Your task to perform on an android device: change the upload size in google photos Image 0: 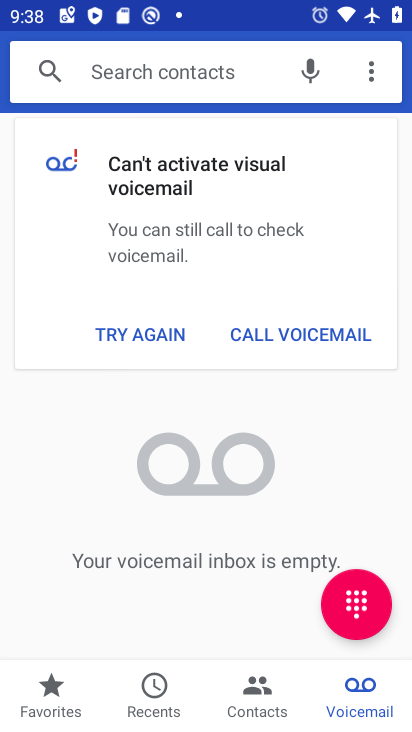
Step 0: press home button
Your task to perform on an android device: change the upload size in google photos Image 1: 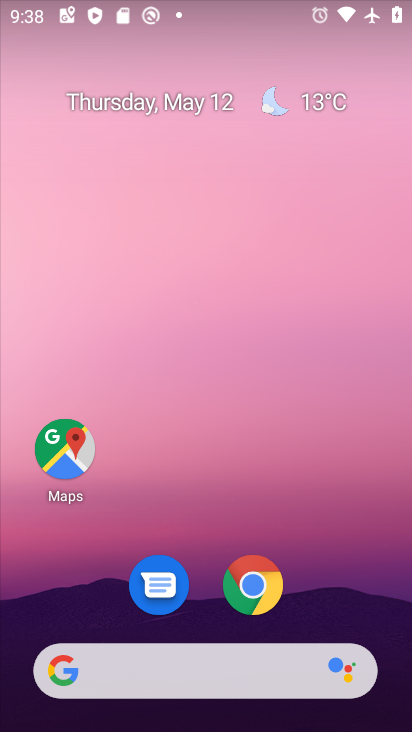
Step 1: drag from (218, 491) to (223, 21)
Your task to perform on an android device: change the upload size in google photos Image 2: 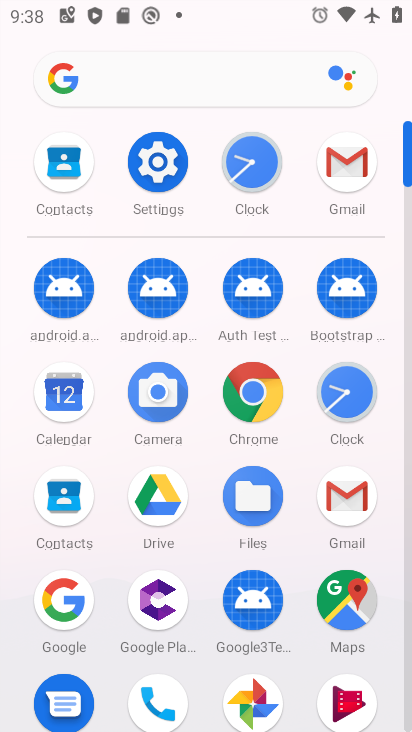
Step 2: click (252, 696)
Your task to perform on an android device: change the upload size in google photos Image 3: 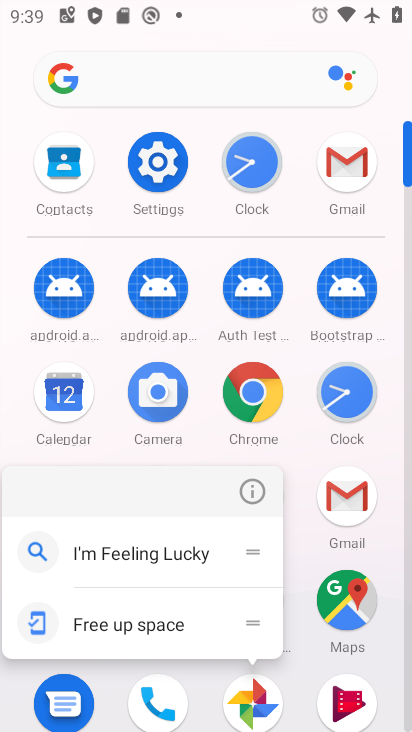
Step 3: click (252, 694)
Your task to perform on an android device: change the upload size in google photos Image 4: 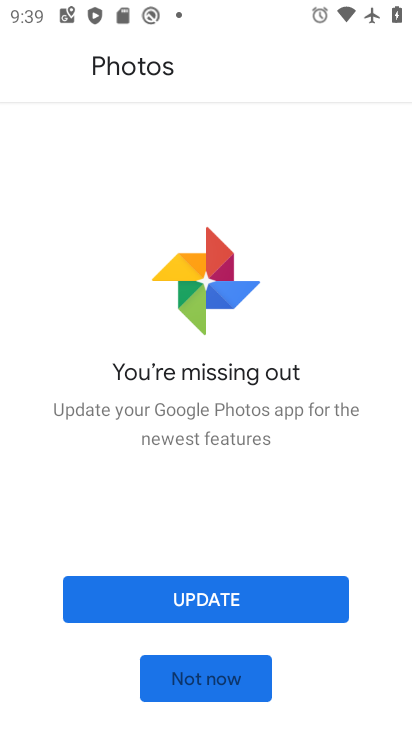
Step 4: click (247, 677)
Your task to perform on an android device: change the upload size in google photos Image 5: 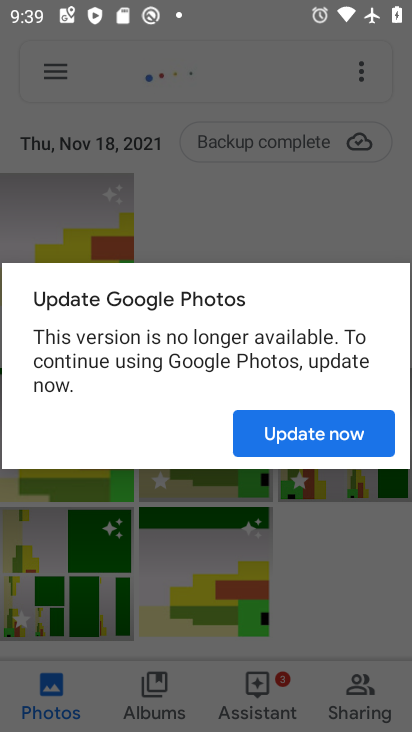
Step 5: click (287, 436)
Your task to perform on an android device: change the upload size in google photos Image 6: 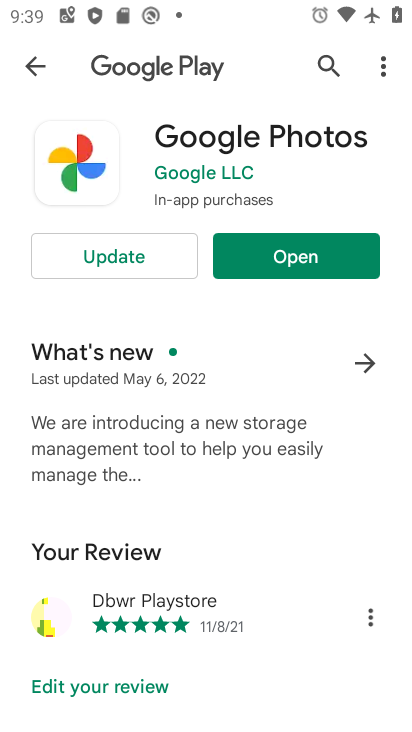
Step 6: click (309, 256)
Your task to perform on an android device: change the upload size in google photos Image 7: 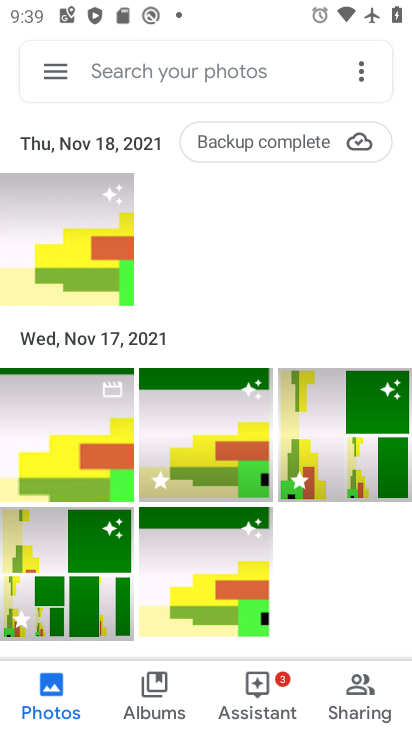
Step 7: click (56, 66)
Your task to perform on an android device: change the upload size in google photos Image 8: 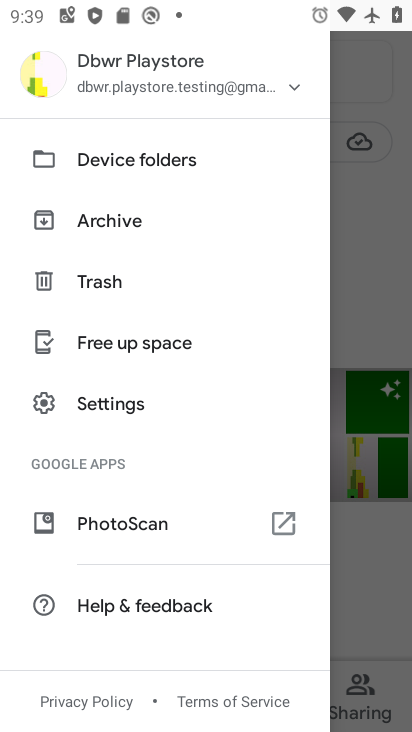
Step 8: click (111, 405)
Your task to perform on an android device: change the upload size in google photos Image 9: 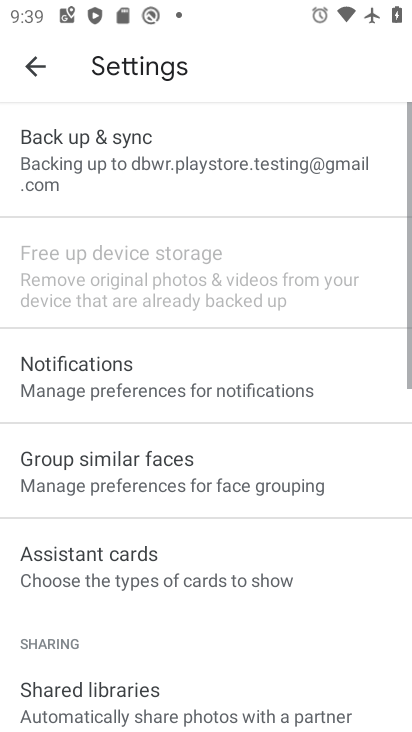
Step 9: click (107, 141)
Your task to perform on an android device: change the upload size in google photos Image 10: 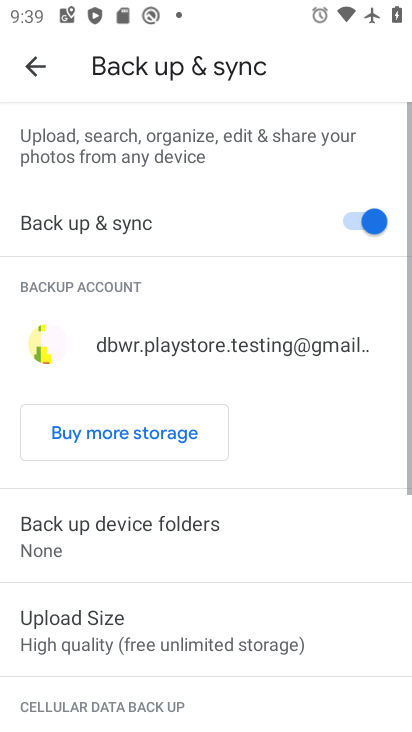
Step 10: click (209, 633)
Your task to perform on an android device: change the upload size in google photos Image 11: 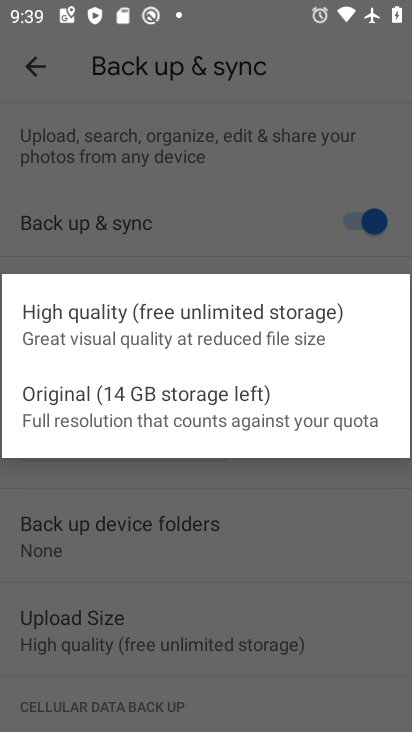
Step 11: click (198, 396)
Your task to perform on an android device: change the upload size in google photos Image 12: 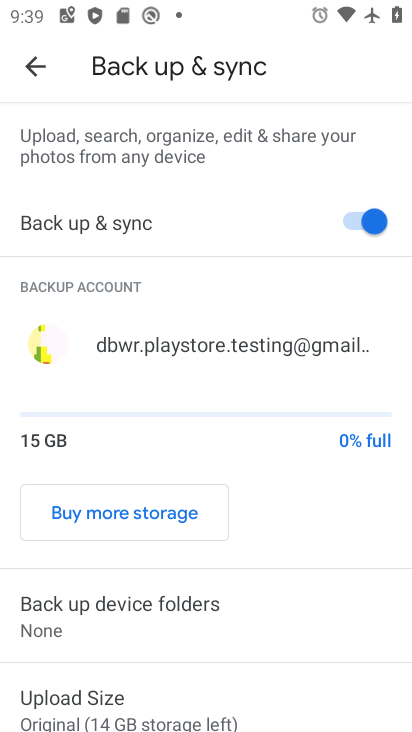
Step 12: task complete